Your task to perform on an android device: choose inbox layout in the gmail app Image 0: 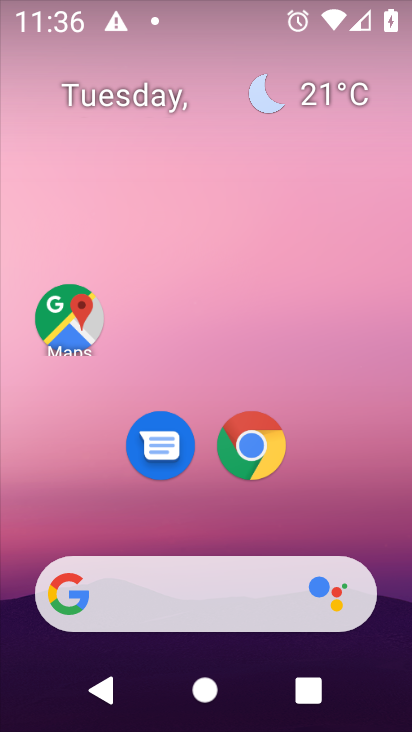
Step 0: drag from (208, 545) to (261, 2)
Your task to perform on an android device: choose inbox layout in the gmail app Image 1: 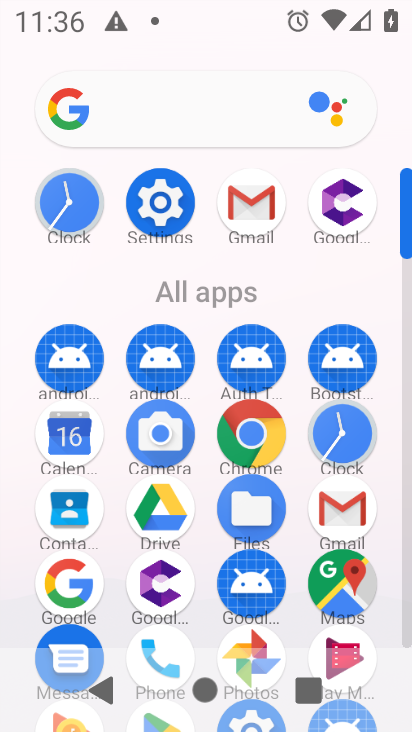
Step 1: click (259, 199)
Your task to perform on an android device: choose inbox layout in the gmail app Image 2: 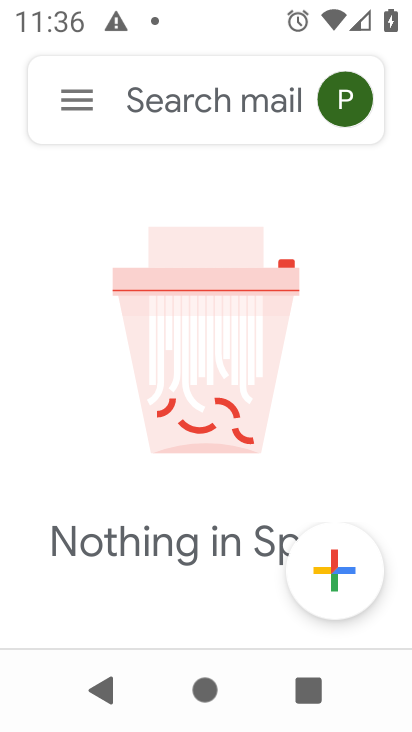
Step 2: click (80, 97)
Your task to perform on an android device: choose inbox layout in the gmail app Image 3: 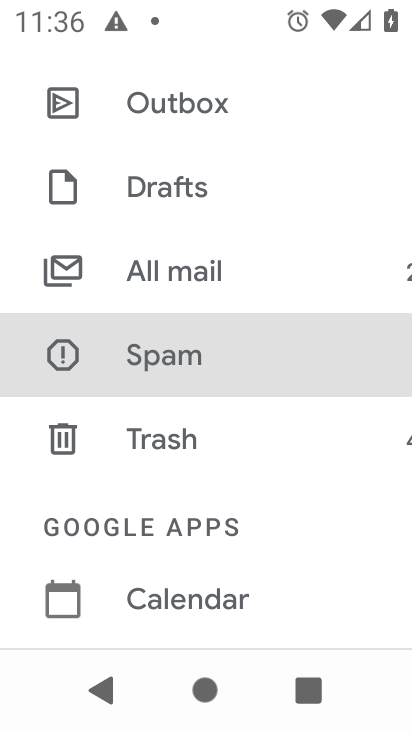
Step 3: drag from (204, 591) to (270, 4)
Your task to perform on an android device: choose inbox layout in the gmail app Image 4: 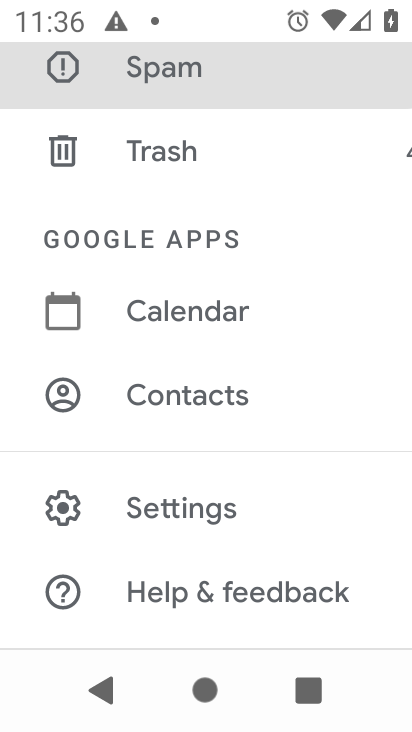
Step 4: click (144, 511)
Your task to perform on an android device: choose inbox layout in the gmail app Image 5: 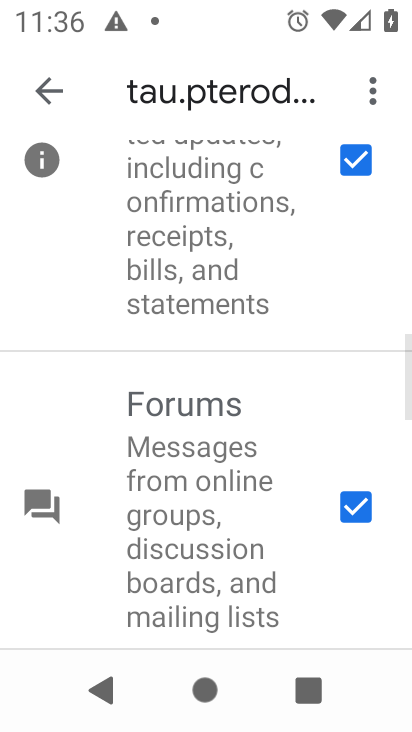
Step 5: drag from (227, 189) to (230, 728)
Your task to perform on an android device: choose inbox layout in the gmail app Image 6: 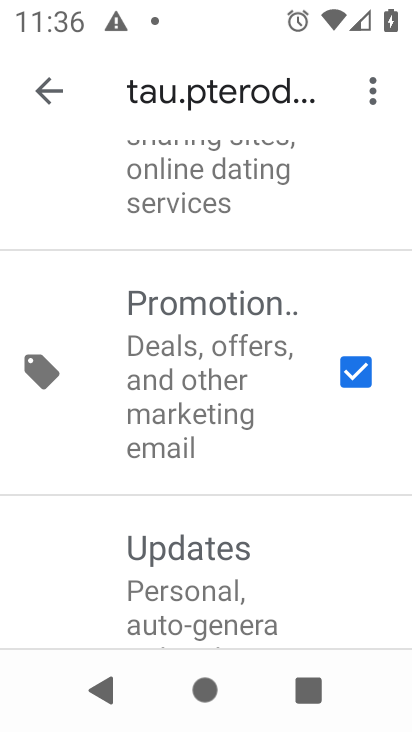
Step 6: press back button
Your task to perform on an android device: choose inbox layout in the gmail app Image 7: 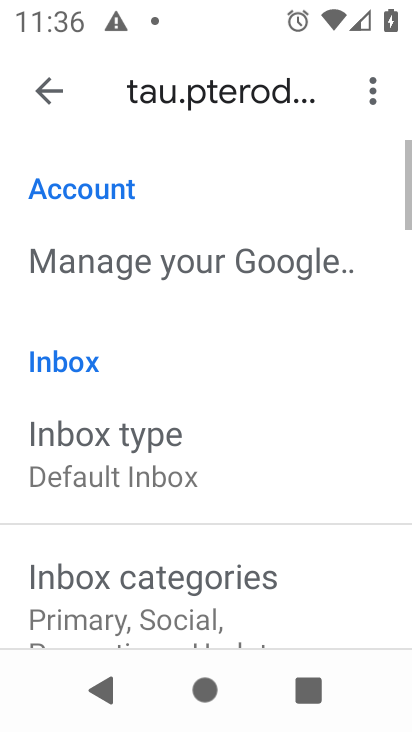
Step 7: click (196, 474)
Your task to perform on an android device: choose inbox layout in the gmail app Image 8: 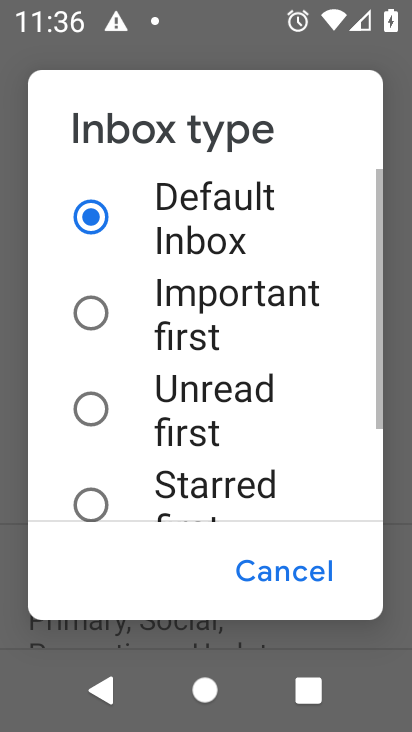
Step 8: drag from (195, 459) to (269, 20)
Your task to perform on an android device: choose inbox layout in the gmail app Image 9: 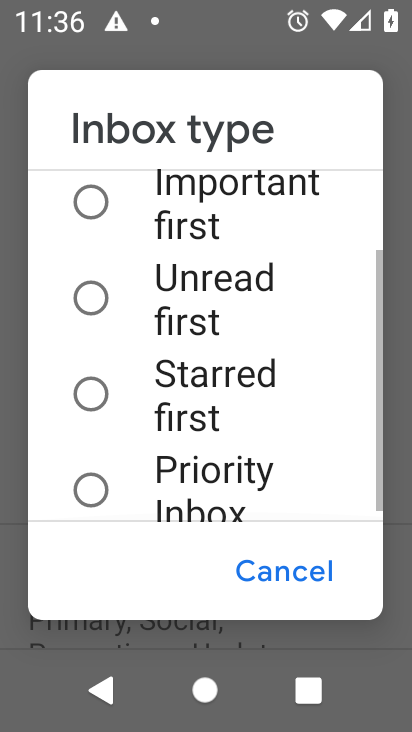
Step 9: click (134, 460)
Your task to perform on an android device: choose inbox layout in the gmail app Image 10: 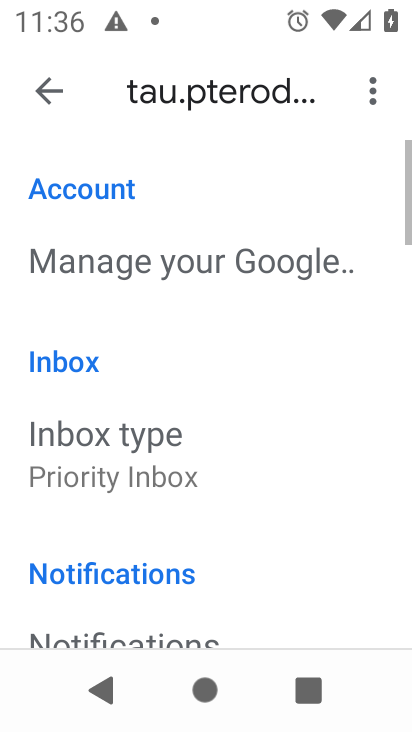
Step 10: task complete